Your task to perform on an android device: Go to CNN.com Image 0: 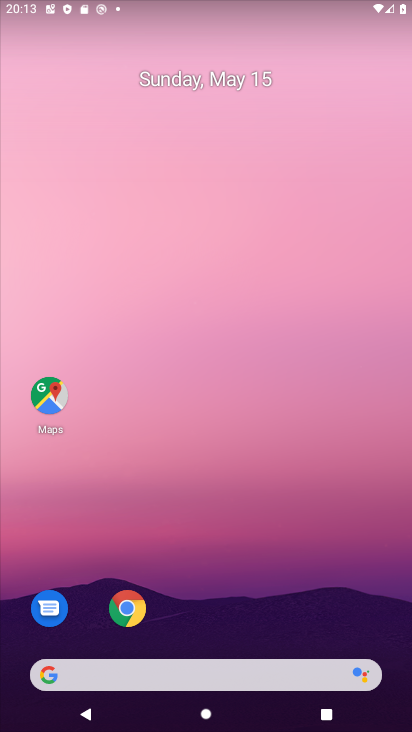
Step 0: drag from (178, 607) to (197, 133)
Your task to perform on an android device: Go to CNN.com Image 1: 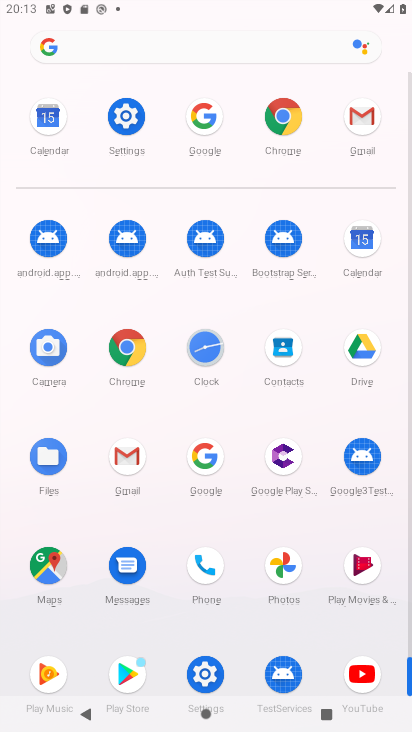
Step 1: click (212, 454)
Your task to perform on an android device: Go to CNN.com Image 2: 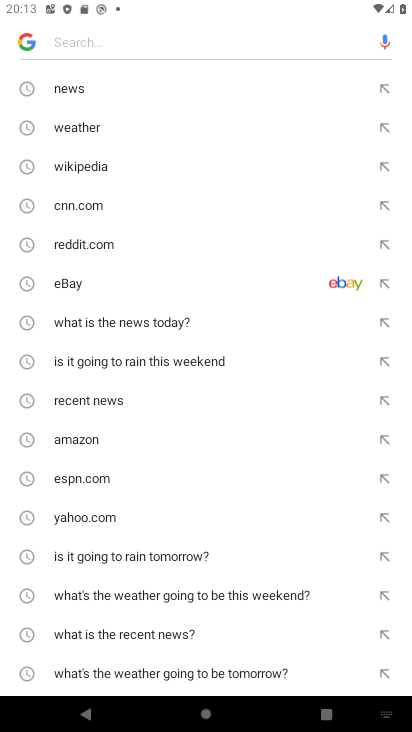
Step 2: click (103, 201)
Your task to perform on an android device: Go to CNN.com Image 3: 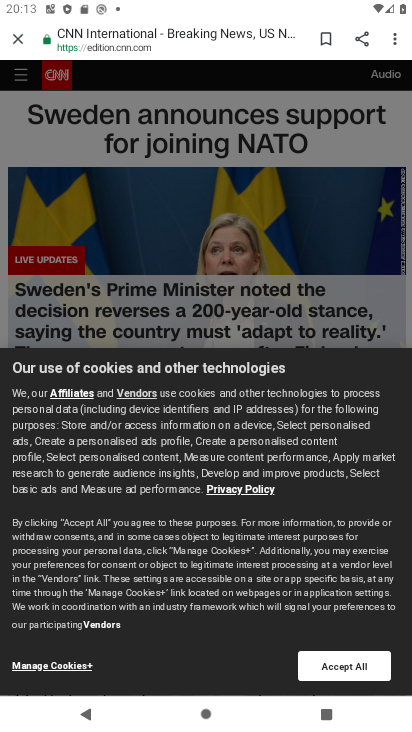
Step 3: click (356, 668)
Your task to perform on an android device: Go to CNN.com Image 4: 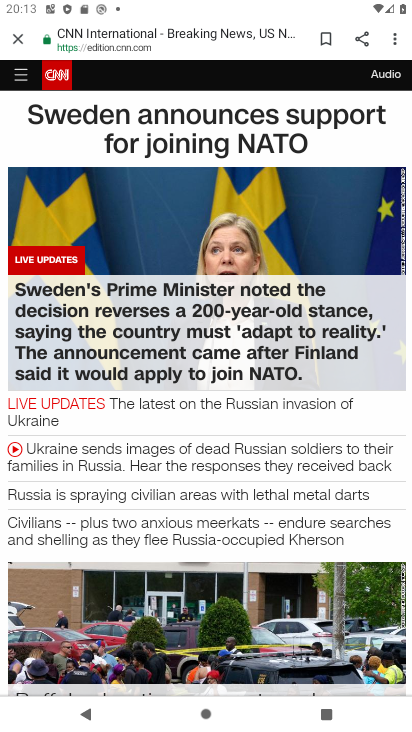
Step 4: task complete